Your task to perform on an android device: turn on the 12-hour format for clock Image 0: 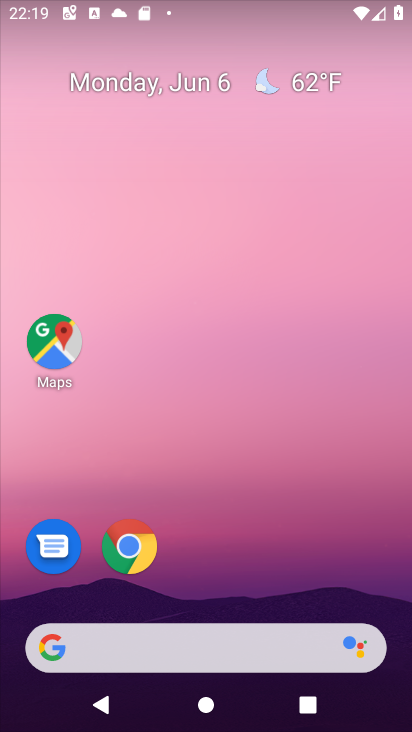
Step 0: drag from (410, 650) to (288, 166)
Your task to perform on an android device: turn on the 12-hour format for clock Image 1: 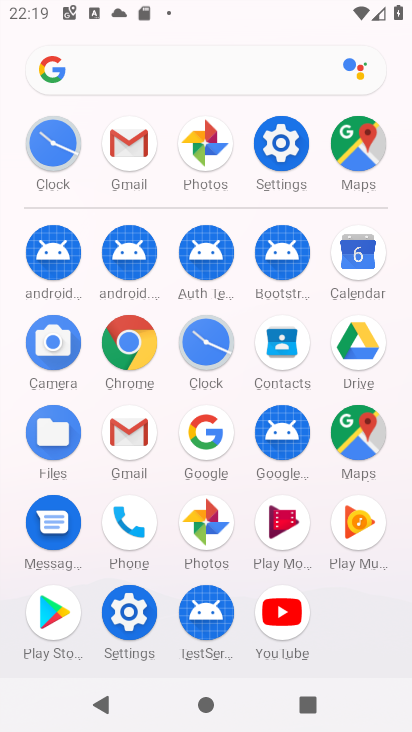
Step 1: click (206, 344)
Your task to perform on an android device: turn on the 12-hour format for clock Image 2: 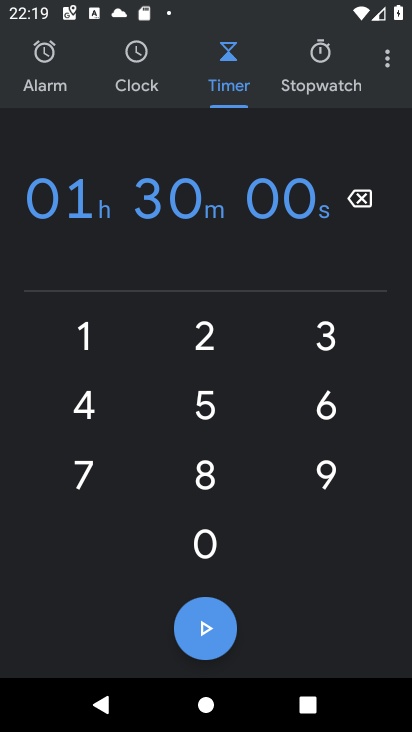
Step 2: click (382, 66)
Your task to perform on an android device: turn on the 12-hour format for clock Image 3: 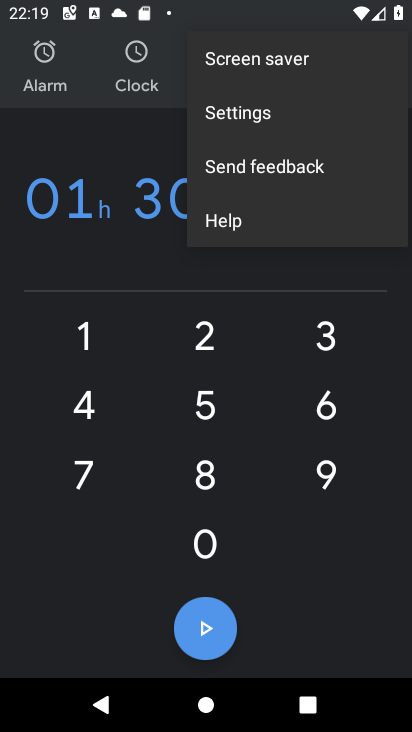
Step 3: click (240, 102)
Your task to perform on an android device: turn on the 12-hour format for clock Image 4: 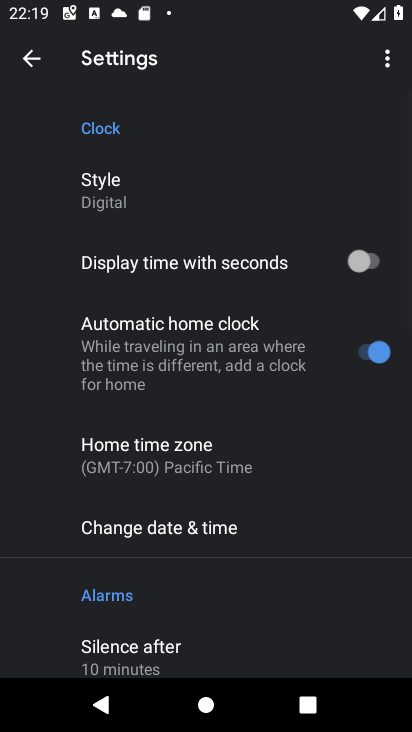
Step 4: drag from (305, 577) to (304, 423)
Your task to perform on an android device: turn on the 12-hour format for clock Image 5: 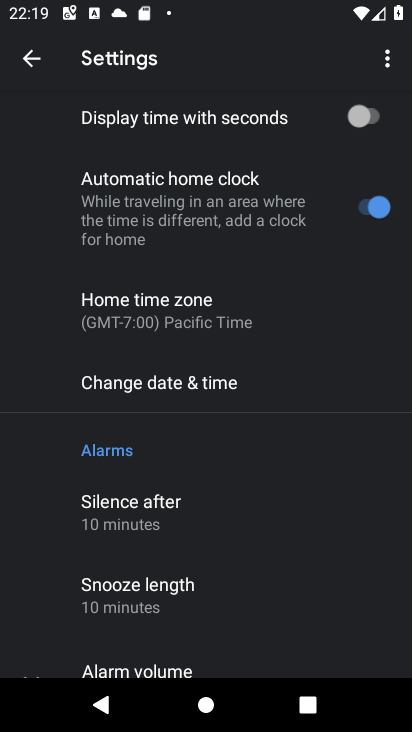
Step 5: click (138, 382)
Your task to perform on an android device: turn on the 12-hour format for clock Image 6: 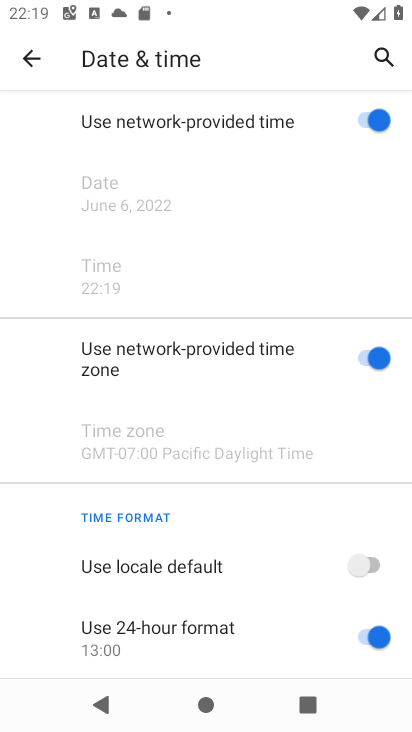
Step 6: drag from (289, 619) to (303, 229)
Your task to perform on an android device: turn on the 12-hour format for clock Image 7: 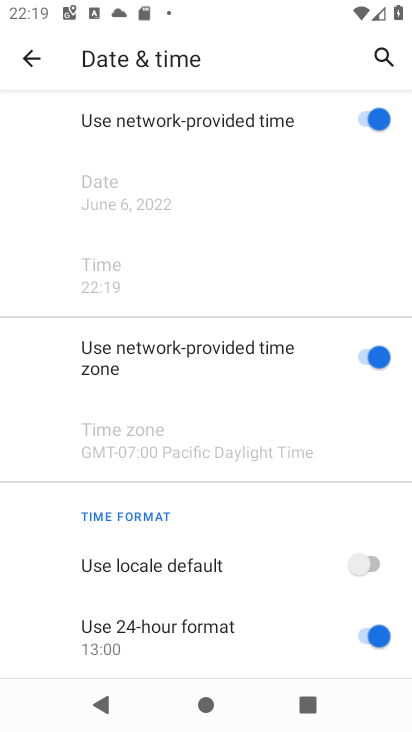
Step 7: click (372, 563)
Your task to perform on an android device: turn on the 12-hour format for clock Image 8: 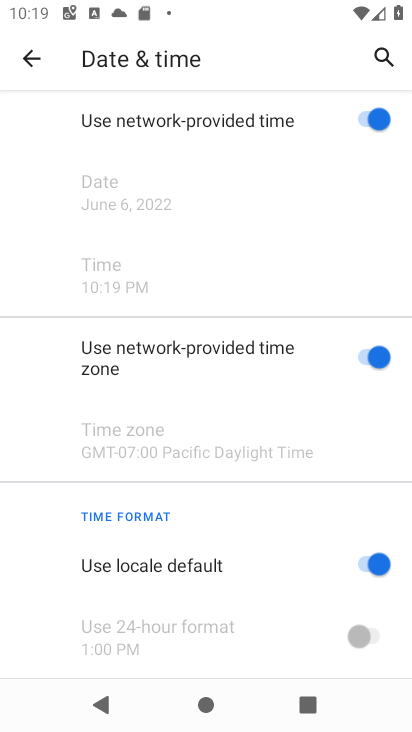
Step 8: task complete